Your task to perform on an android device: Open Yahoo.com Image 0: 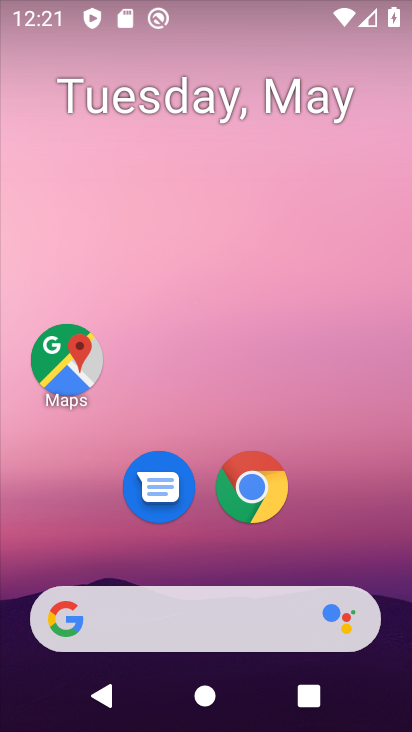
Step 0: drag from (332, 526) to (331, 40)
Your task to perform on an android device: Open Yahoo.com Image 1: 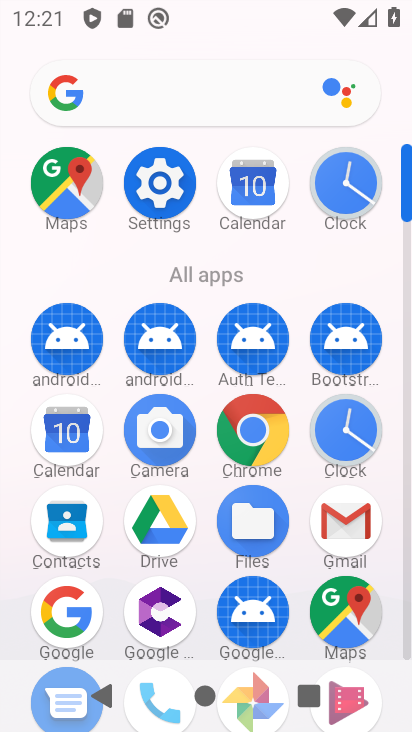
Step 1: click (254, 424)
Your task to perform on an android device: Open Yahoo.com Image 2: 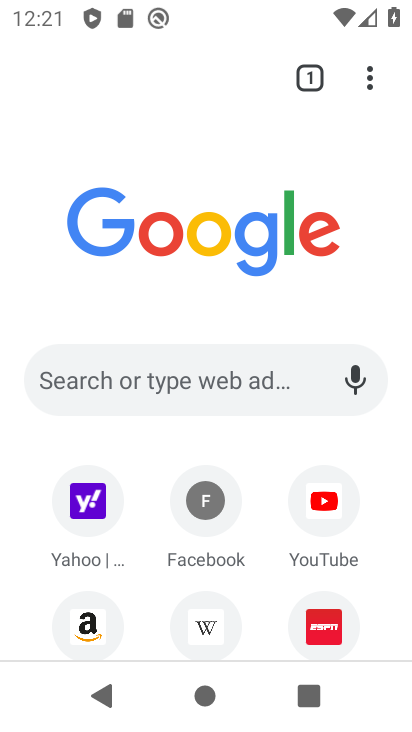
Step 2: click (77, 496)
Your task to perform on an android device: Open Yahoo.com Image 3: 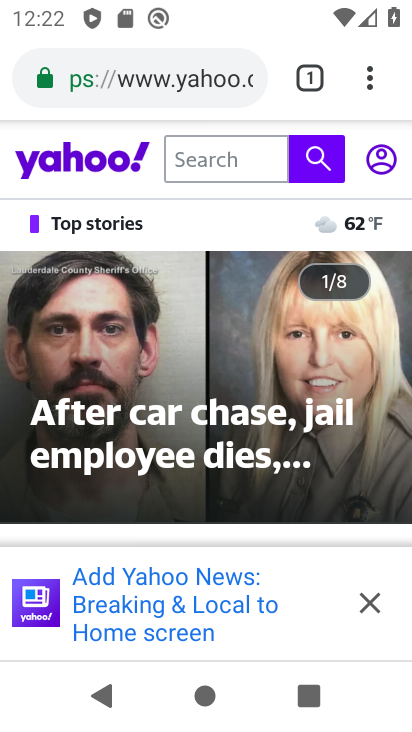
Step 3: task complete